Your task to perform on an android device: open a new tab in the chrome app Image 0: 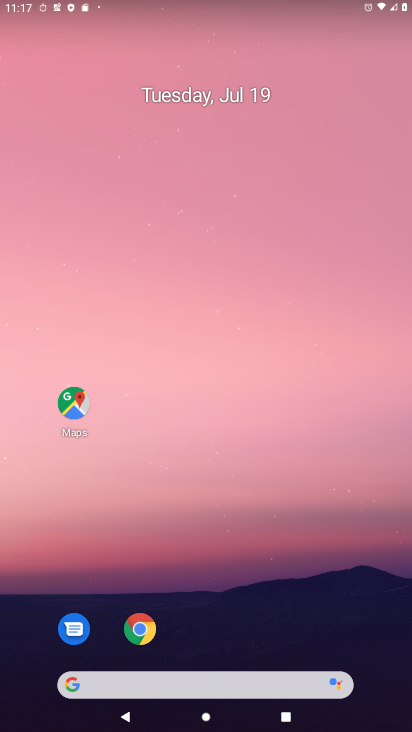
Step 0: drag from (271, 553) to (206, 11)
Your task to perform on an android device: open a new tab in the chrome app Image 1: 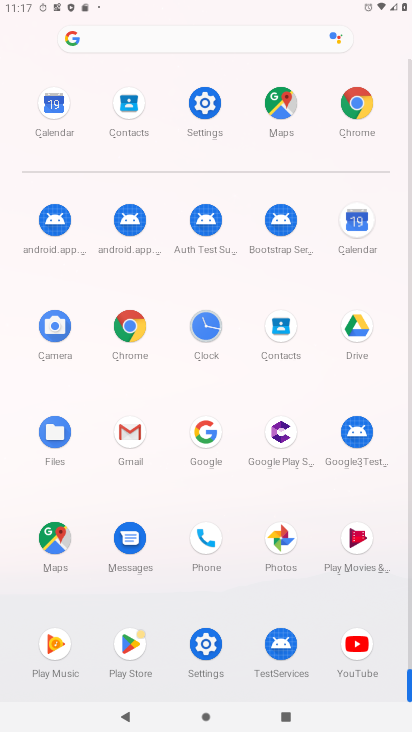
Step 1: click (375, 103)
Your task to perform on an android device: open a new tab in the chrome app Image 2: 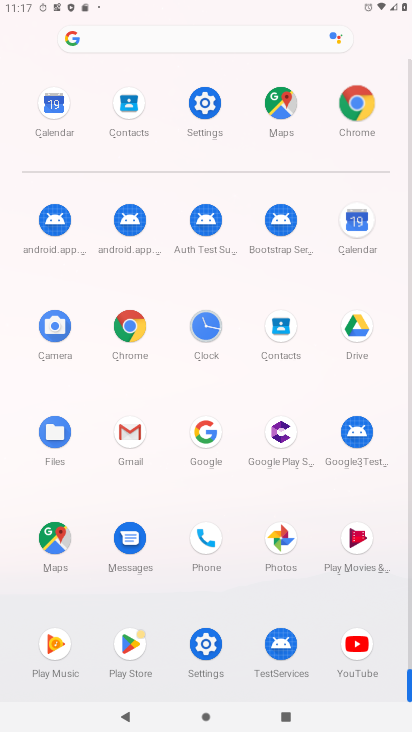
Step 2: click (363, 103)
Your task to perform on an android device: open a new tab in the chrome app Image 3: 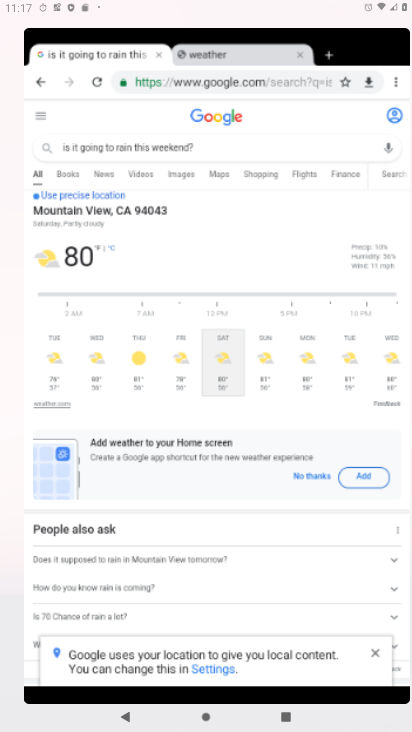
Step 3: click (364, 100)
Your task to perform on an android device: open a new tab in the chrome app Image 4: 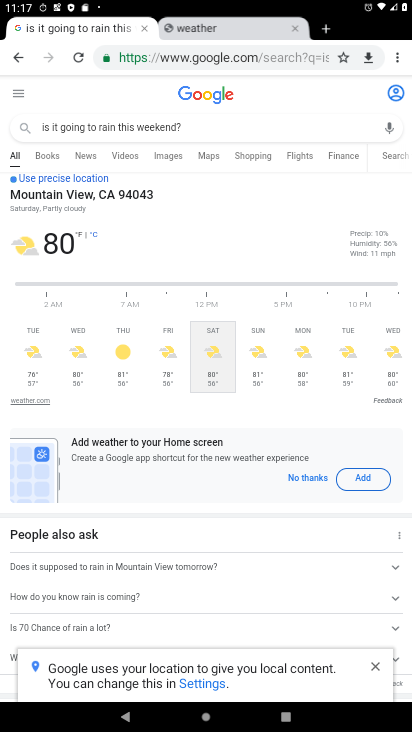
Step 4: click (326, 30)
Your task to perform on an android device: open a new tab in the chrome app Image 5: 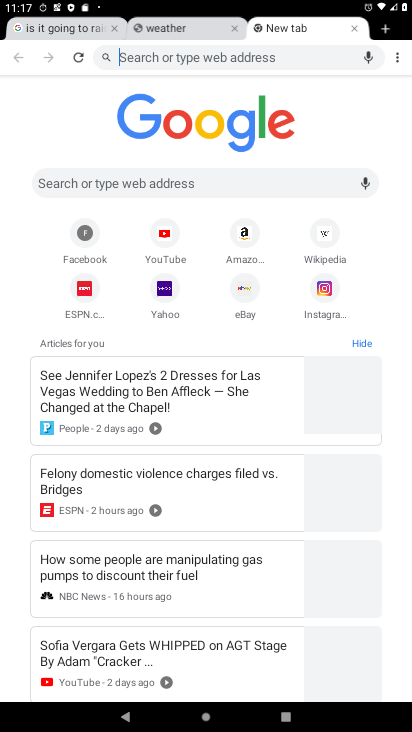
Step 5: task complete